Your task to perform on an android device: Search for Mexican restaurants on Maps Image 0: 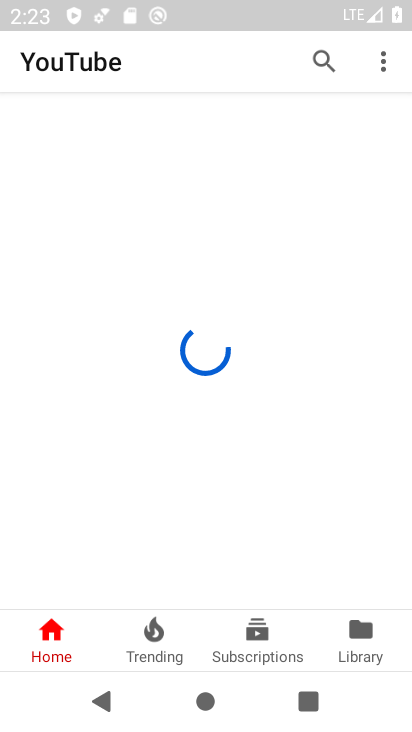
Step 0: drag from (142, 620) to (329, 254)
Your task to perform on an android device: Search for Mexican restaurants on Maps Image 1: 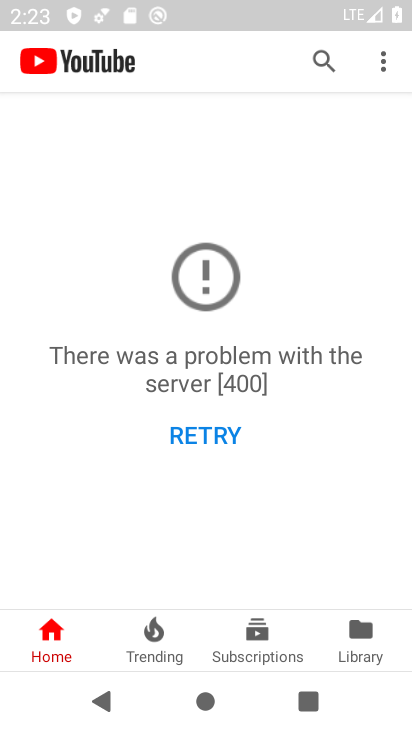
Step 1: press home button
Your task to perform on an android device: Search for Mexican restaurants on Maps Image 2: 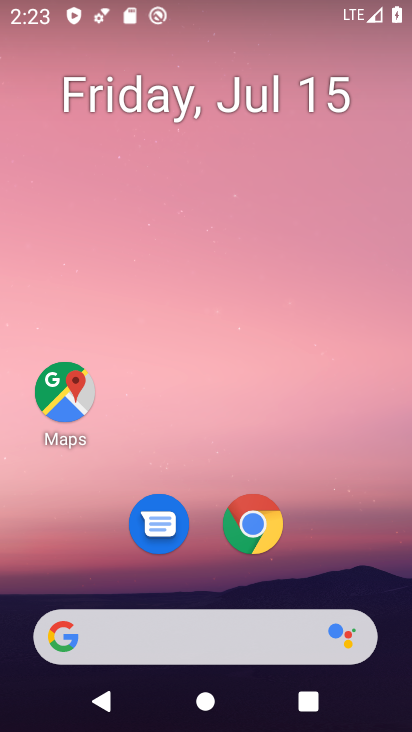
Step 2: click (70, 388)
Your task to perform on an android device: Search for Mexican restaurants on Maps Image 3: 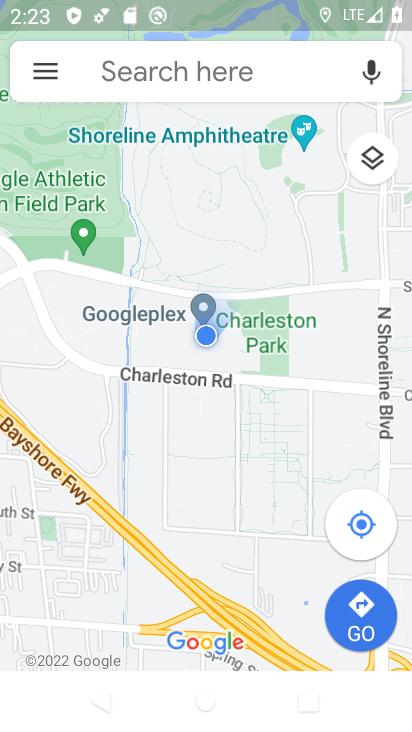
Step 3: click (131, 64)
Your task to perform on an android device: Search for Mexican restaurants on Maps Image 4: 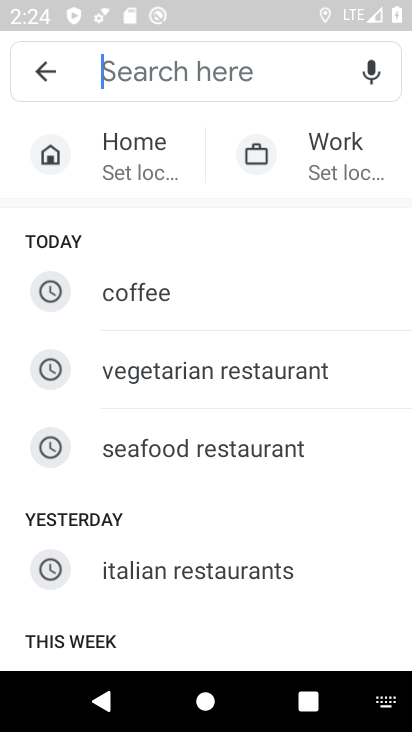
Step 4: drag from (296, 601) to (315, 225)
Your task to perform on an android device: Search for Mexican restaurants on Maps Image 5: 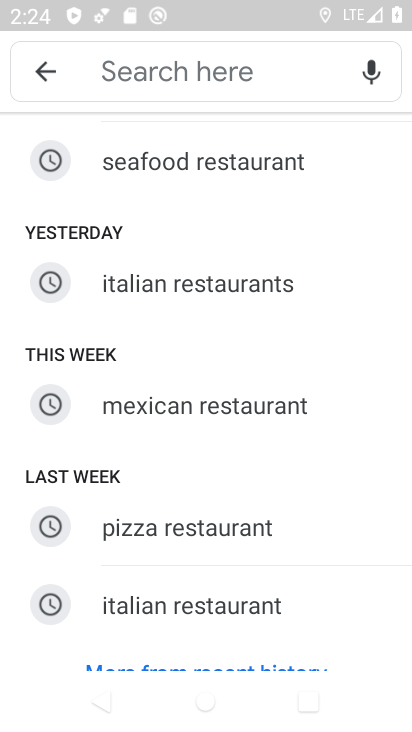
Step 5: click (183, 401)
Your task to perform on an android device: Search for Mexican restaurants on Maps Image 6: 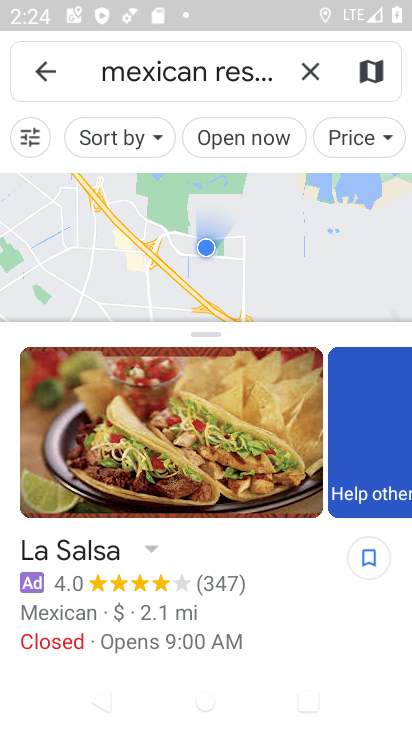
Step 6: task complete